Your task to perform on an android device: Open Youtube and go to "Your channel" Image 0: 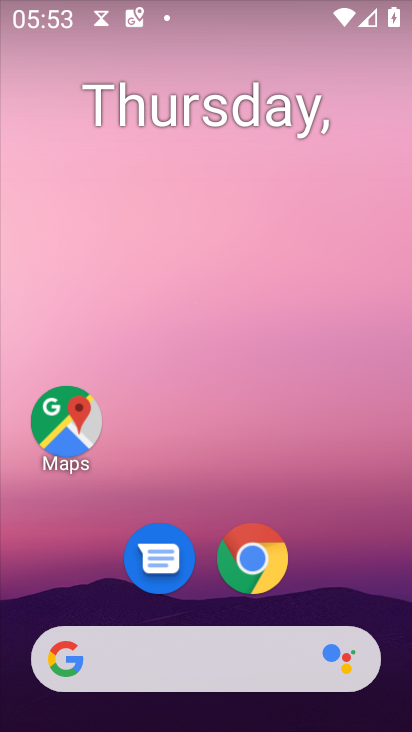
Step 0: drag from (308, 586) to (294, 219)
Your task to perform on an android device: Open Youtube and go to "Your channel" Image 1: 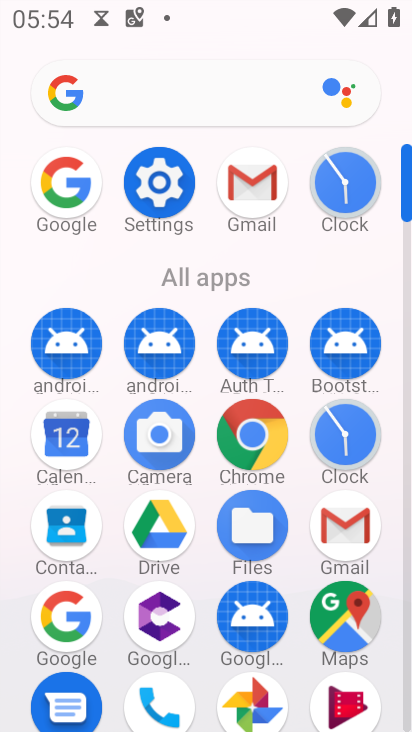
Step 1: drag from (283, 622) to (280, 196)
Your task to perform on an android device: Open Youtube and go to "Your channel" Image 2: 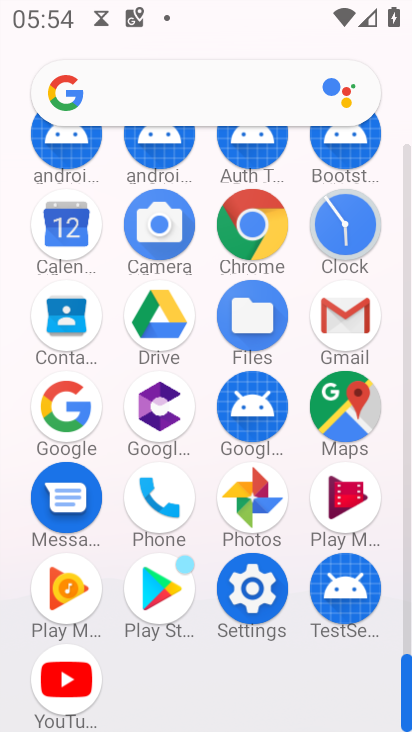
Step 2: click (70, 692)
Your task to perform on an android device: Open Youtube and go to "Your channel" Image 3: 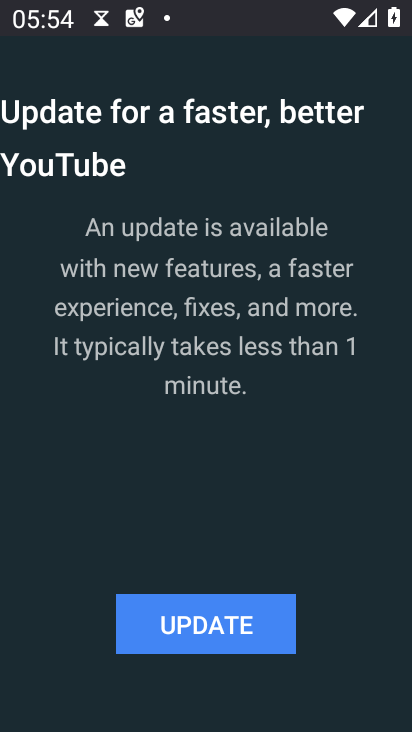
Step 3: click (206, 624)
Your task to perform on an android device: Open Youtube and go to "Your channel" Image 4: 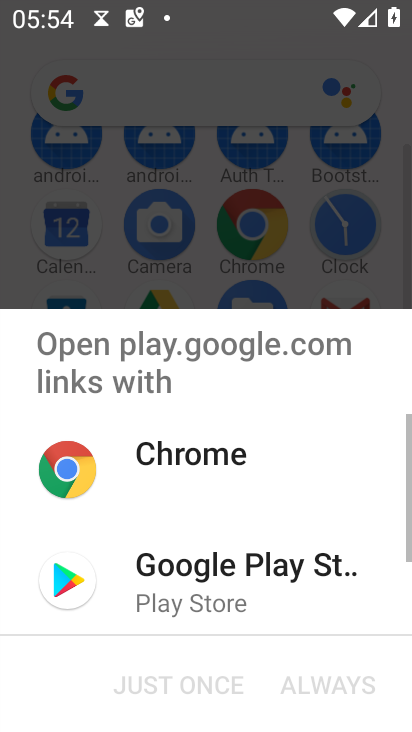
Step 4: click (276, 597)
Your task to perform on an android device: Open Youtube and go to "Your channel" Image 5: 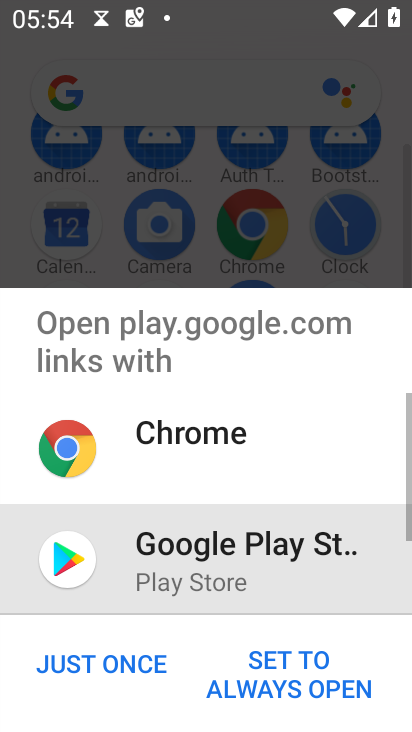
Step 5: click (273, 674)
Your task to perform on an android device: Open Youtube and go to "Your channel" Image 6: 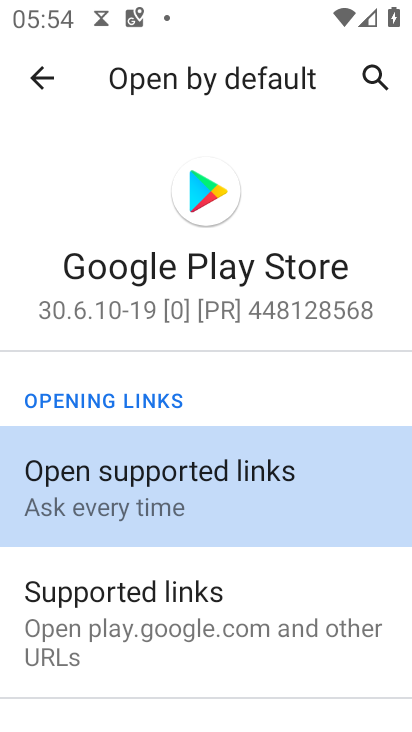
Step 6: click (218, 486)
Your task to perform on an android device: Open Youtube and go to "Your channel" Image 7: 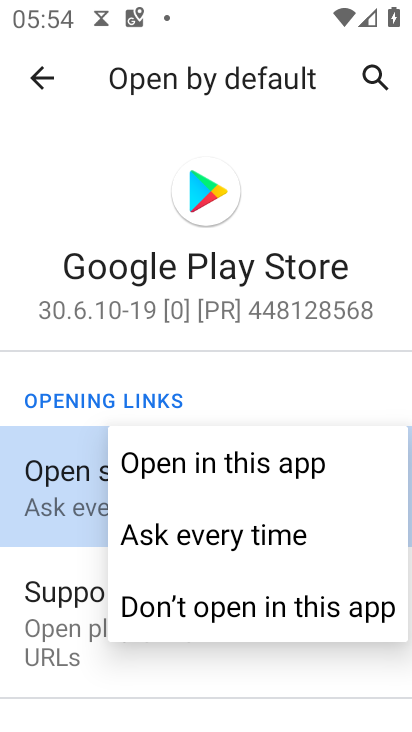
Step 7: click (221, 466)
Your task to perform on an android device: Open Youtube and go to "Your channel" Image 8: 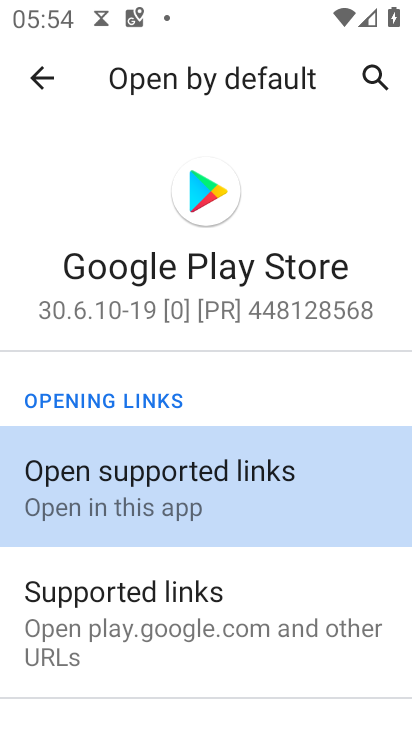
Step 8: click (41, 80)
Your task to perform on an android device: Open Youtube and go to "Your channel" Image 9: 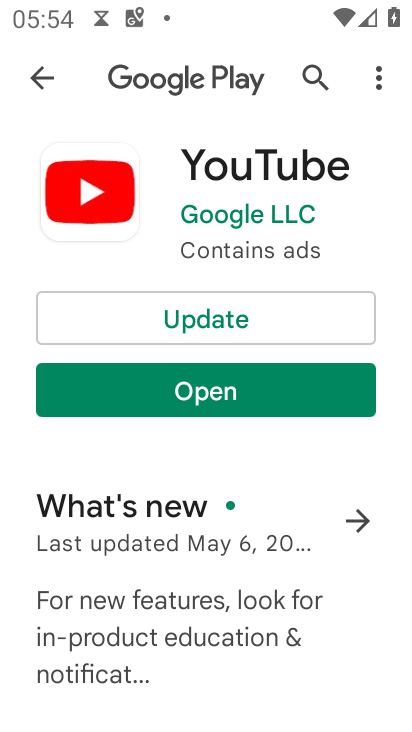
Step 9: click (216, 332)
Your task to perform on an android device: Open Youtube and go to "Your channel" Image 10: 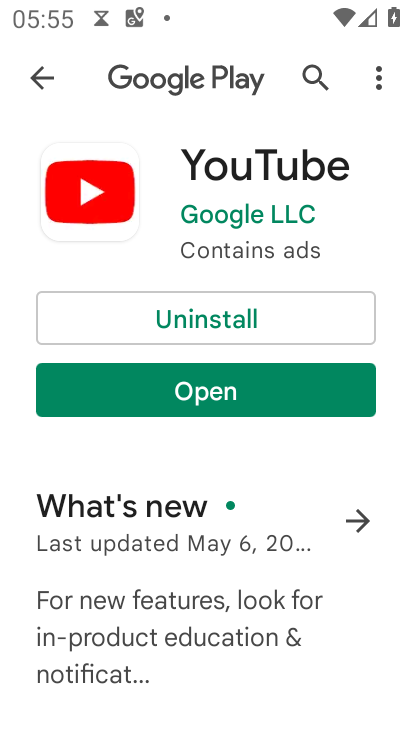
Step 10: click (173, 389)
Your task to perform on an android device: Open Youtube and go to "Your channel" Image 11: 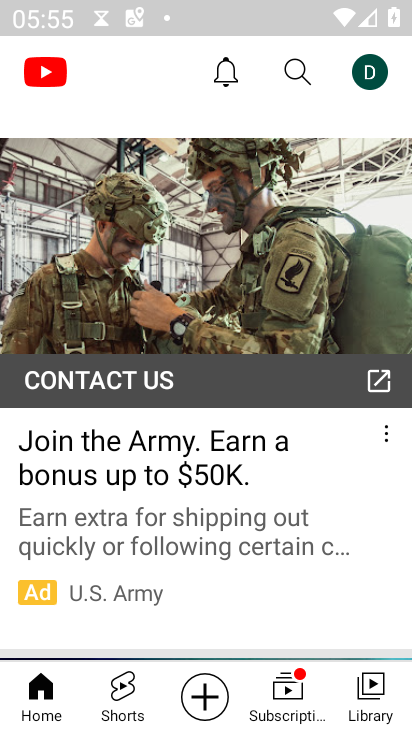
Step 11: click (360, 72)
Your task to perform on an android device: Open Youtube and go to "Your channel" Image 12: 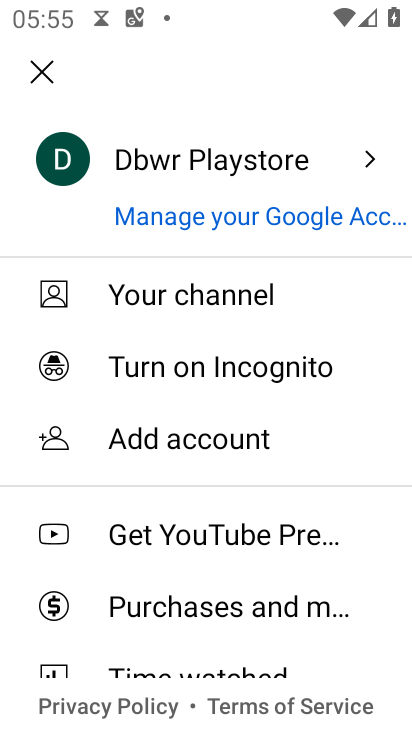
Step 12: click (191, 302)
Your task to perform on an android device: Open Youtube and go to "Your channel" Image 13: 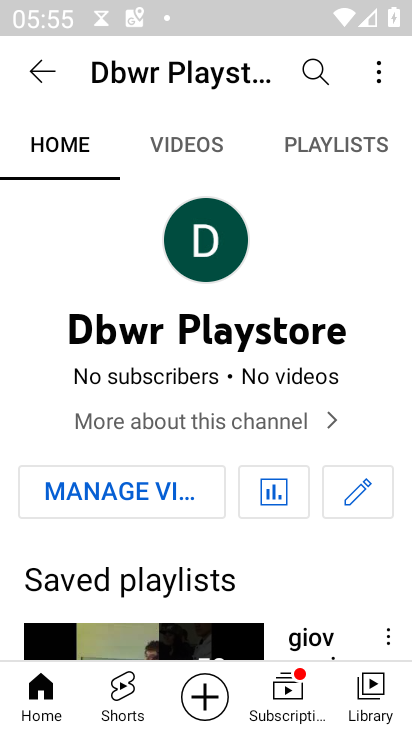
Step 13: task complete